Your task to perform on an android device: Open sound settings Image 0: 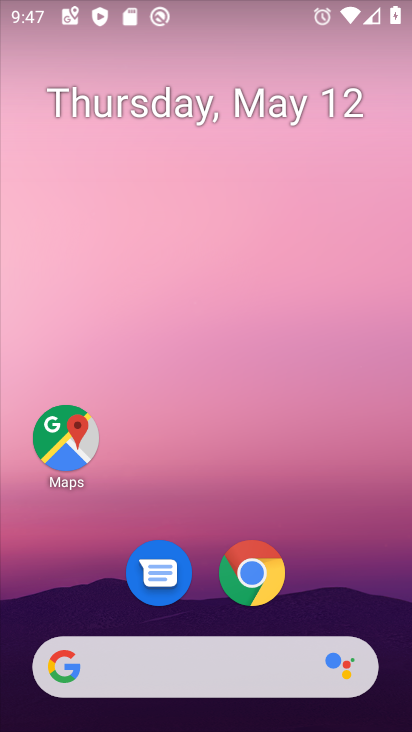
Step 0: drag from (340, 553) to (292, 51)
Your task to perform on an android device: Open sound settings Image 1: 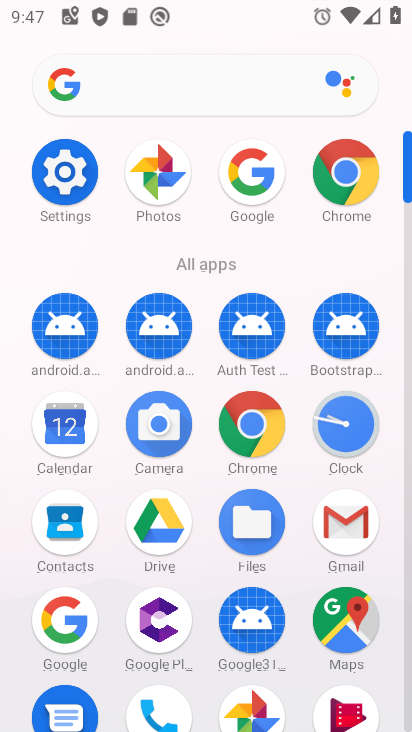
Step 1: click (61, 172)
Your task to perform on an android device: Open sound settings Image 2: 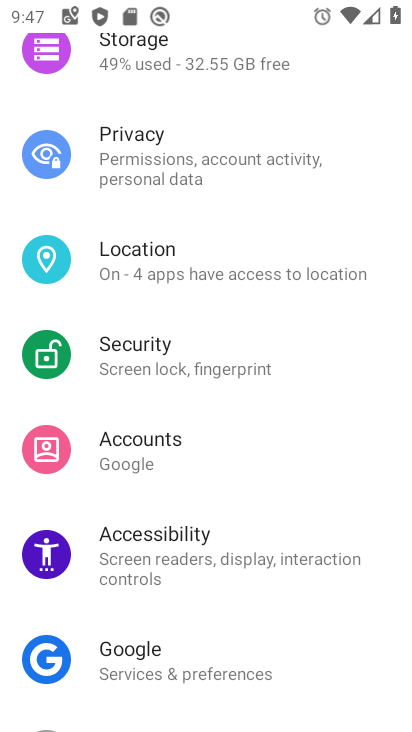
Step 2: drag from (204, 262) to (191, 379)
Your task to perform on an android device: Open sound settings Image 3: 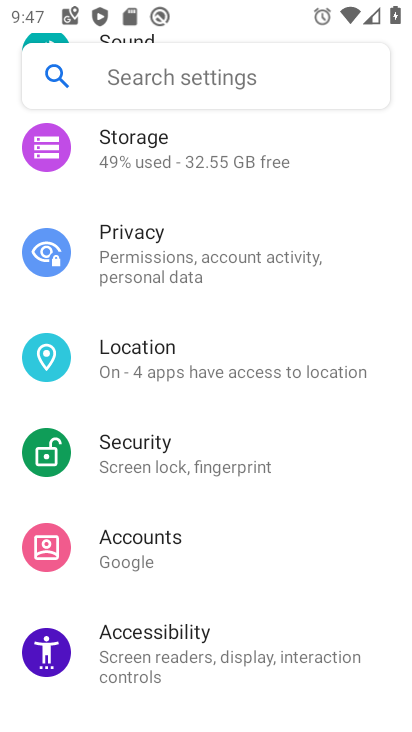
Step 3: drag from (188, 206) to (230, 364)
Your task to perform on an android device: Open sound settings Image 4: 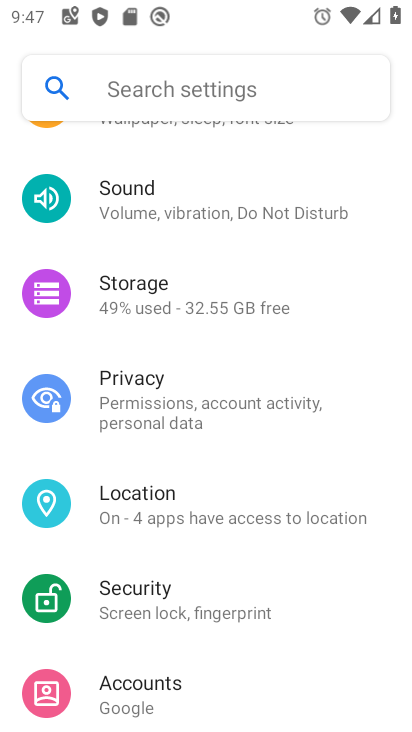
Step 4: click (148, 206)
Your task to perform on an android device: Open sound settings Image 5: 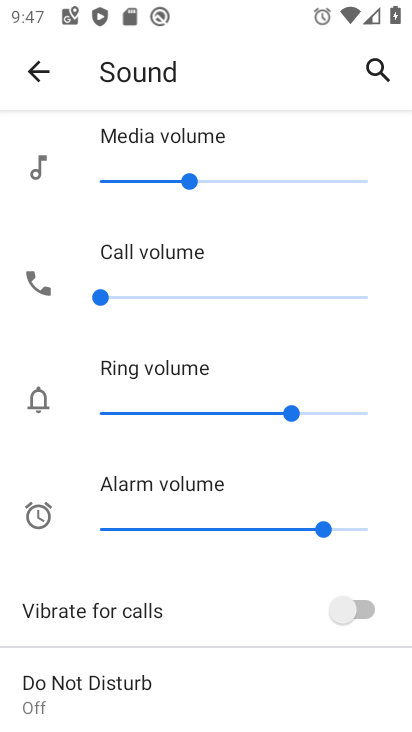
Step 5: task complete